Your task to perform on an android device: see sites visited before in the chrome app Image 0: 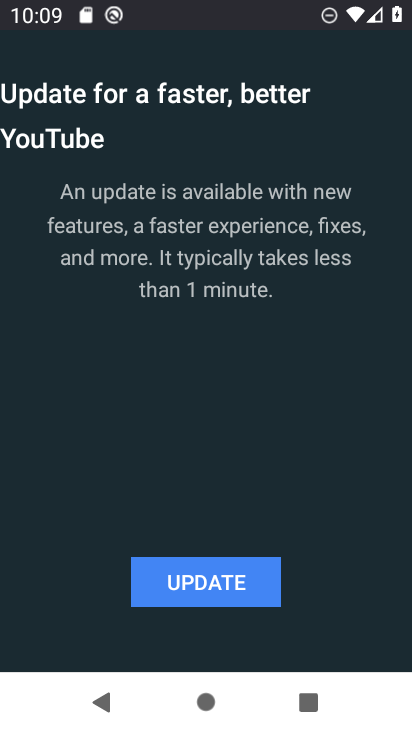
Step 0: press back button
Your task to perform on an android device: see sites visited before in the chrome app Image 1: 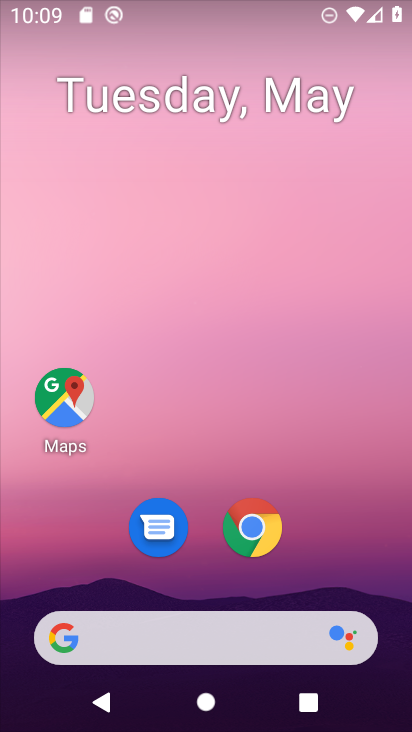
Step 1: click (251, 523)
Your task to perform on an android device: see sites visited before in the chrome app Image 2: 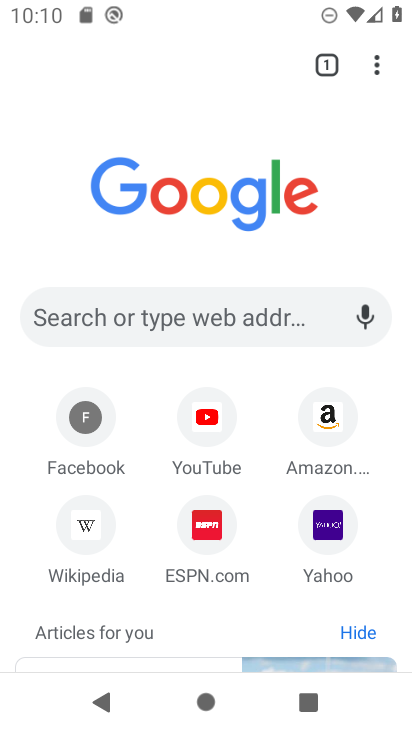
Step 2: click (376, 63)
Your task to perform on an android device: see sites visited before in the chrome app Image 3: 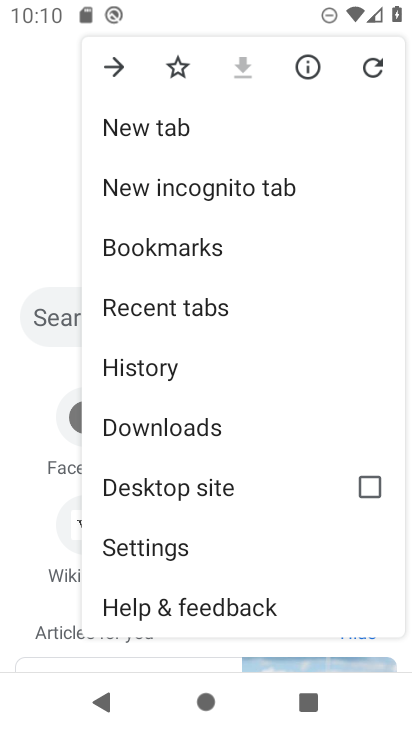
Step 3: click (138, 371)
Your task to perform on an android device: see sites visited before in the chrome app Image 4: 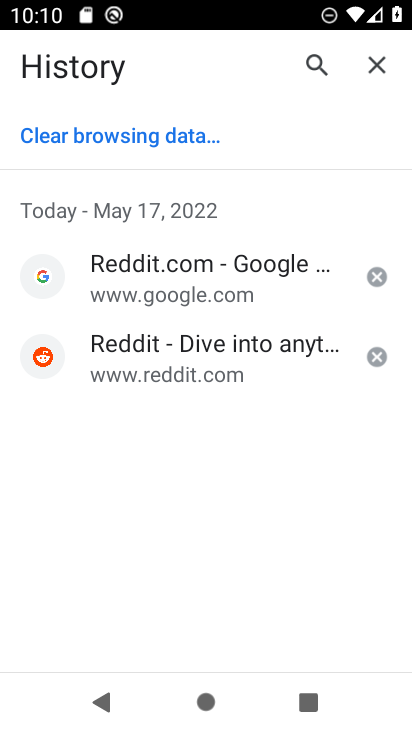
Step 4: task complete